Your task to perform on an android device: Show me popular games on the Play Store Image 0: 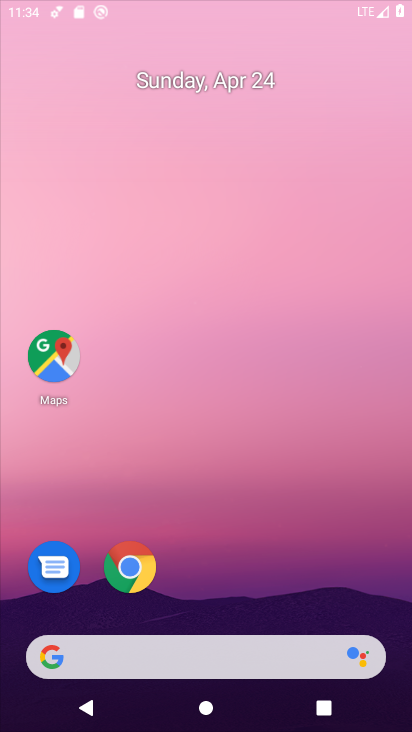
Step 0: click (287, 231)
Your task to perform on an android device: Show me popular games on the Play Store Image 1: 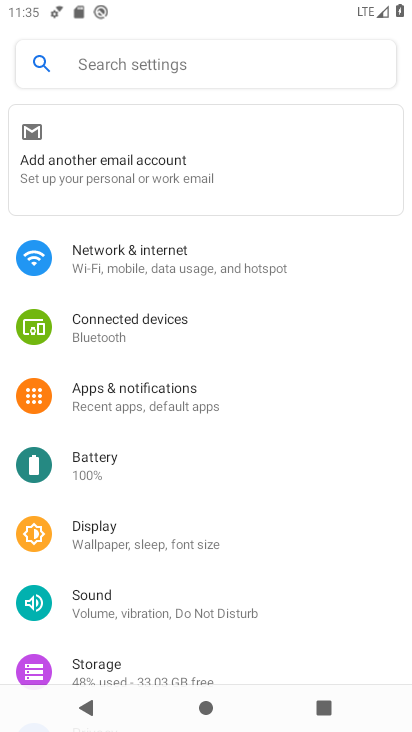
Step 1: click (326, 178)
Your task to perform on an android device: Show me popular games on the Play Store Image 2: 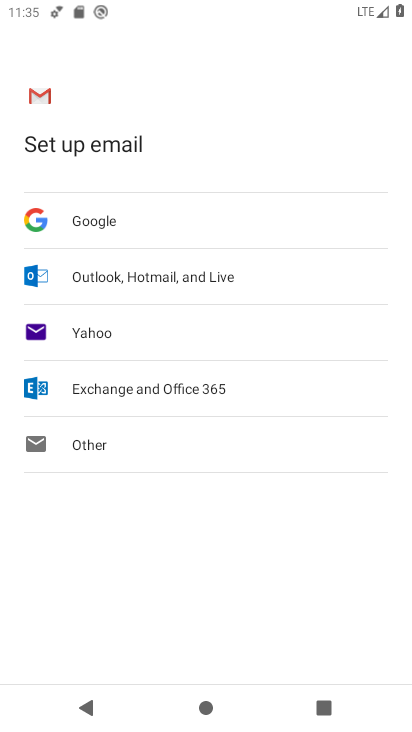
Step 2: press home button
Your task to perform on an android device: Show me popular games on the Play Store Image 3: 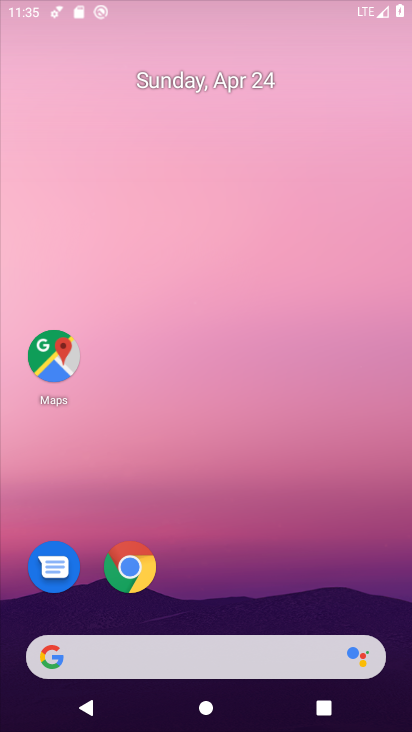
Step 3: drag from (263, 558) to (273, 223)
Your task to perform on an android device: Show me popular games on the Play Store Image 4: 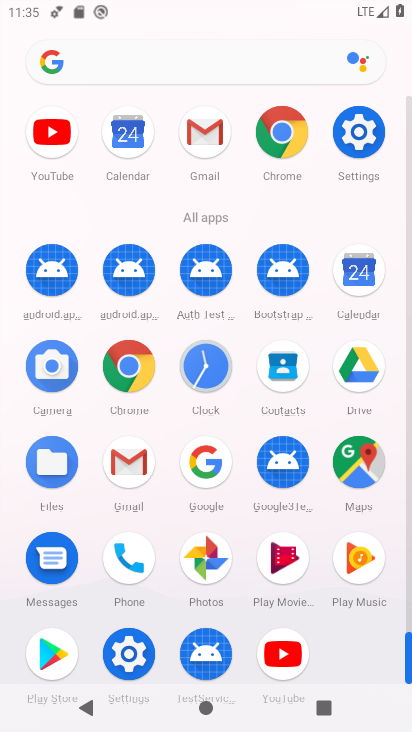
Step 4: click (48, 672)
Your task to perform on an android device: Show me popular games on the Play Store Image 5: 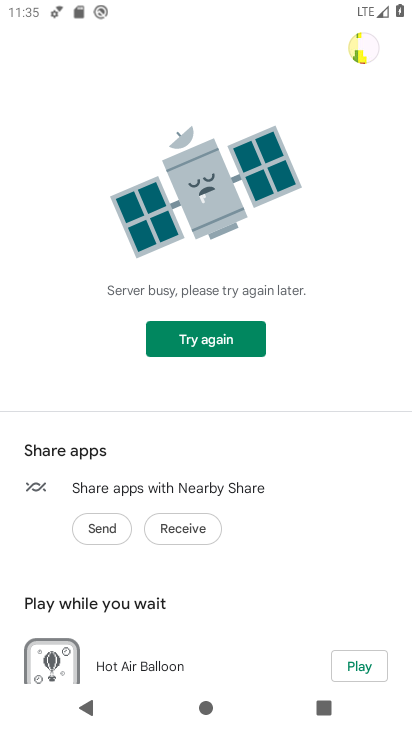
Step 5: click (48, 672)
Your task to perform on an android device: Show me popular games on the Play Store Image 6: 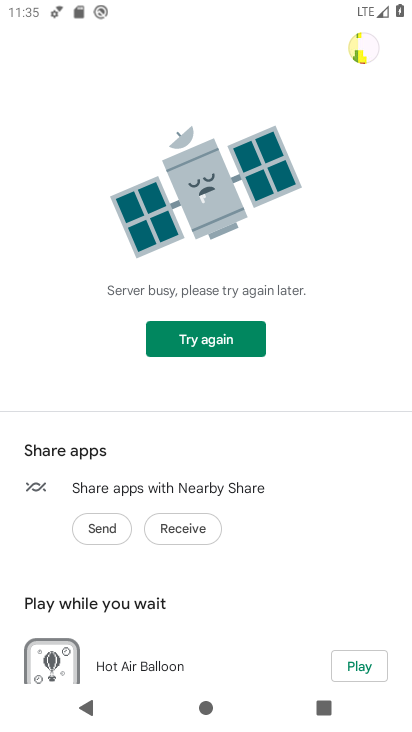
Step 6: task complete